Your task to perform on an android device: clear history in the chrome app Image 0: 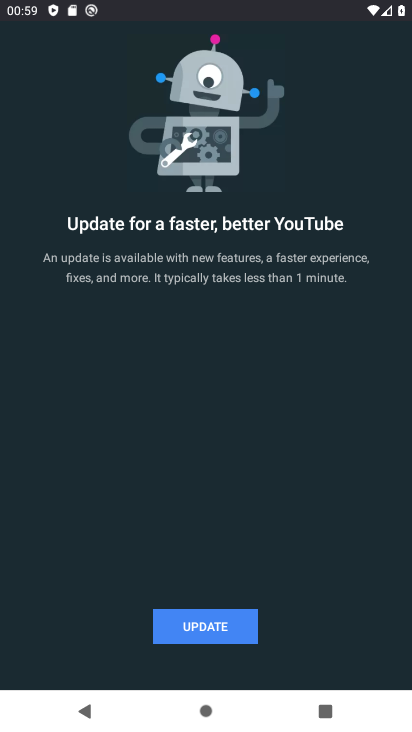
Step 0: press home button
Your task to perform on an android device: clear history in the chrome app Image 1: 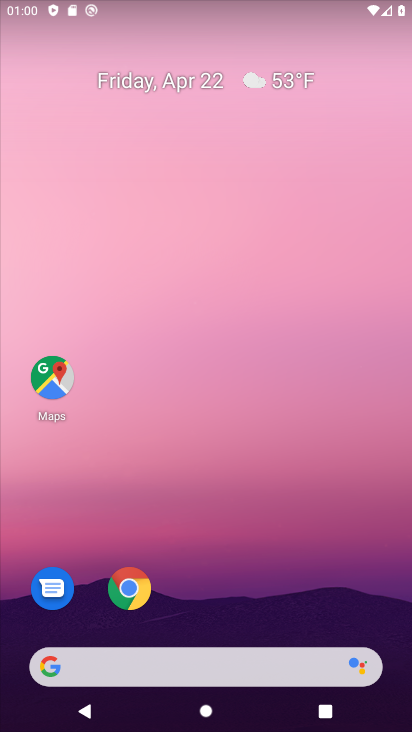
Step 1: click (126, 586)
Your task to perform on an android device: clear history in the chrome app Image 2: 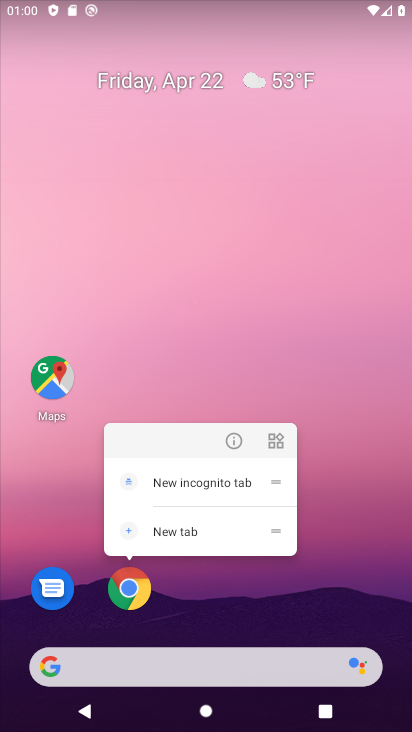
Step 2: click (130, 586)
Your task to perform on an android device: clear history in the chrome app Image 3: 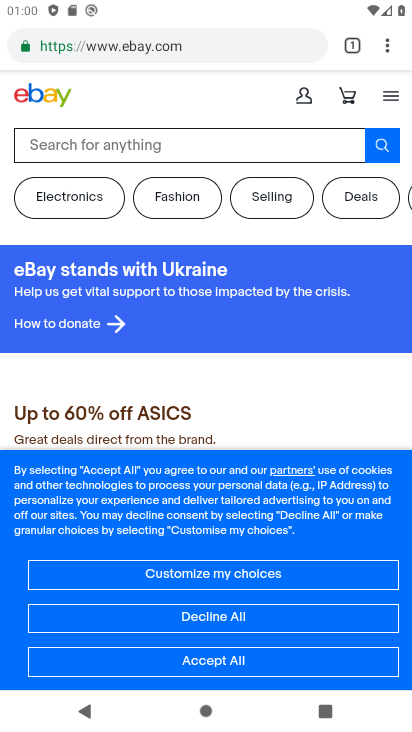
Step 3: drag from (383, 38) to (248, 313)
Your task to perform on an android device: clear history in the chrome app Image 4: 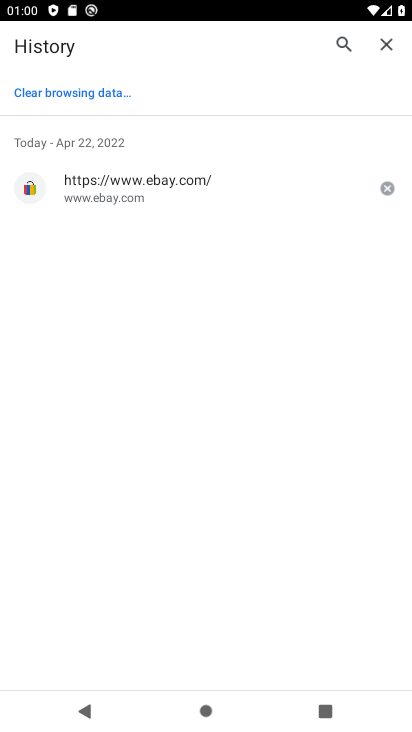
Step 4: click (112, 102)
Your task to perform on an android device: clear history in the chrome app Image 5: 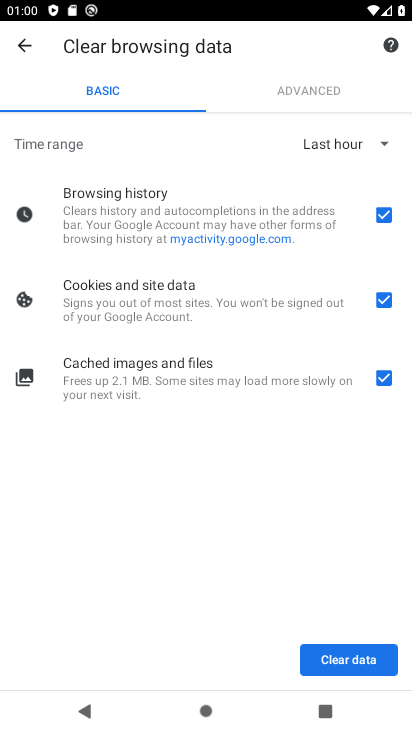
Step 5: click (333, 657)
Your task to perform on an android device: clear history in the chrome app Image 6: 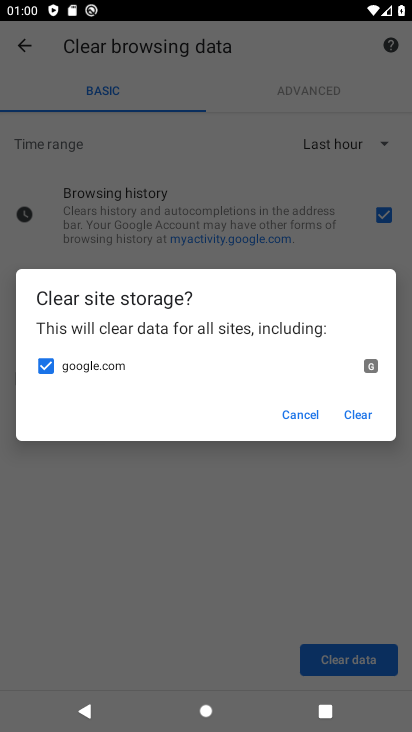
Step 6: click (358, 409)
Your task to perform on an android device: clear history in the chrome app Image 7: 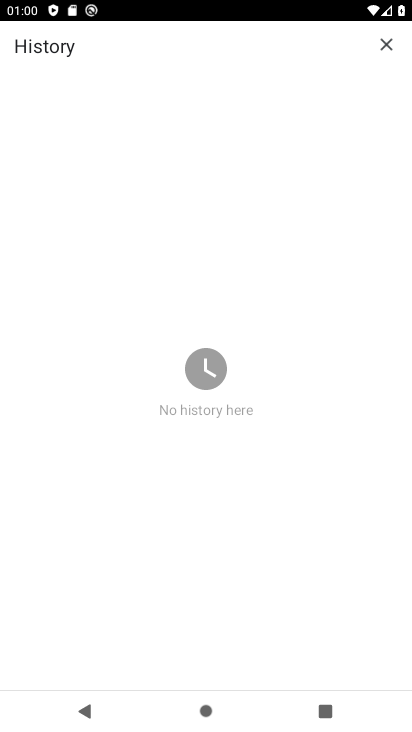
Step 7: task complete